Your task to perform on an android device: Go to privacy settings Image 0: 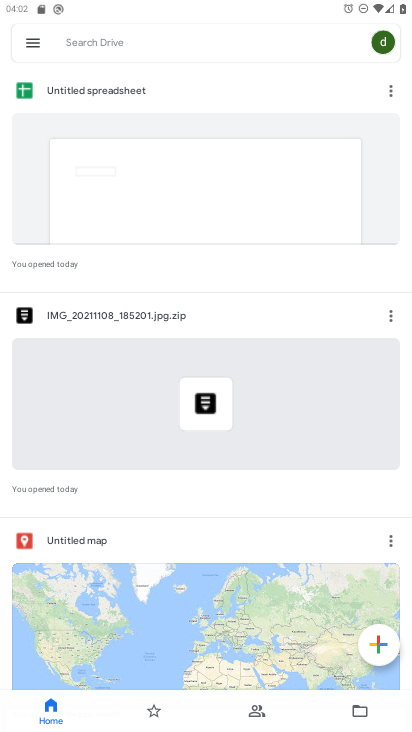
Step 0: press home button
Your task to perform on an android device: Go to privacy settings Image 1: 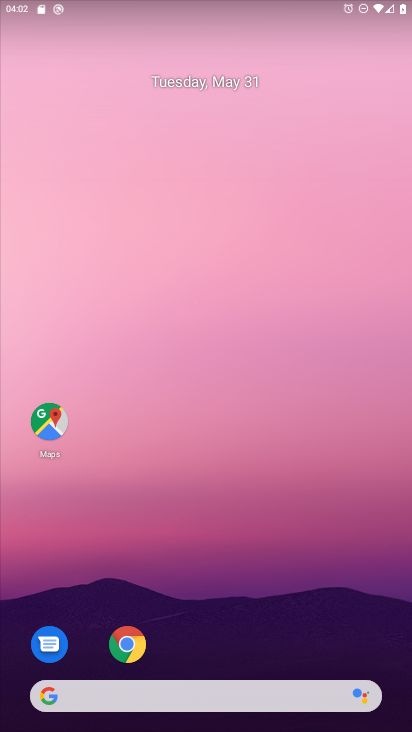
Step 1: drag from (272, 479) to (204, 81)
Your task to perform on an android device: Go to privacy settings Image 2: 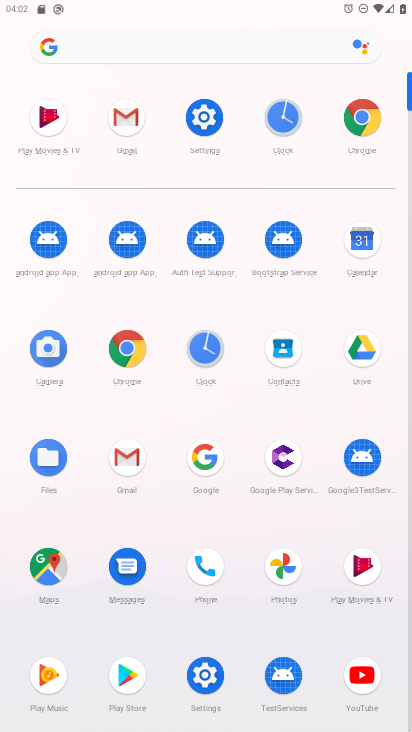
Step 2: click (204, 119)
Your task to perform on an android device: Go to privacy settings Image 3: 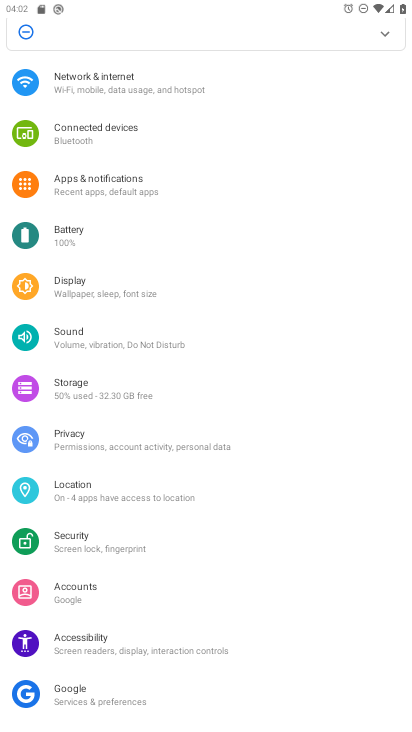
Step 3: click (111, 442)
Your task to perform on an android device: Go to privacy settings Image 4: 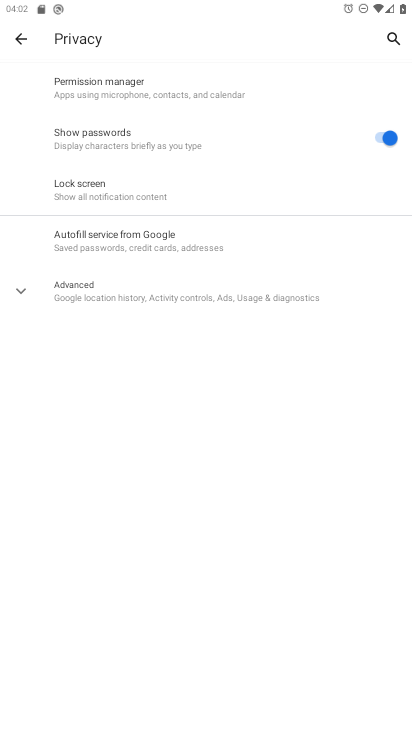
Step 4: task complete